Your task to perform on an android device: Open the phone app and click the voicemail tab. Image 0: 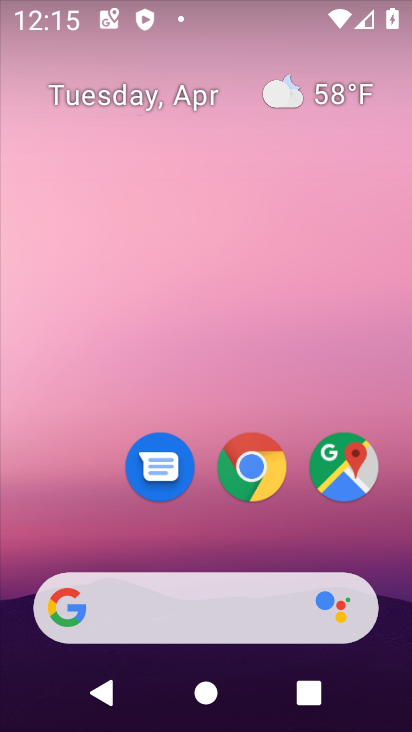
Step 0: drag from (170, 540) to (226, 46)
Your task to perform on an android device: Open the phone app and click the voicemail tab. Image 1: 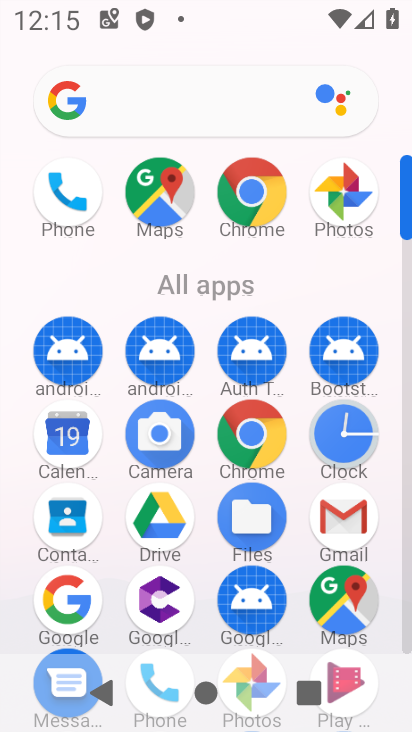
Step 1: click (69, 211)
Your task to perform on an android device: Open the phone app and click the voicemail tab. Image 2: 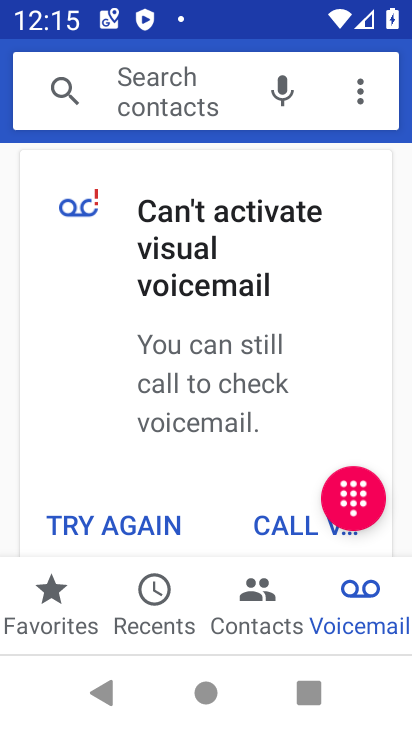
Step 2: task complete